Your task to perform on an android device: set an alarm Image 0: 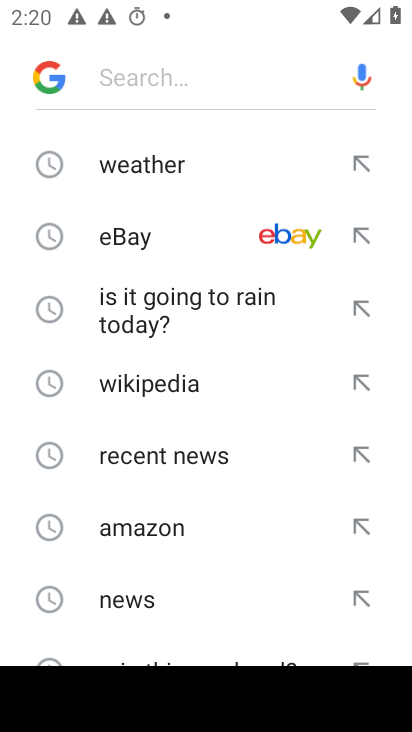
Step 0: press home button
Your task to perform on an android device: set an alarm Image 1: 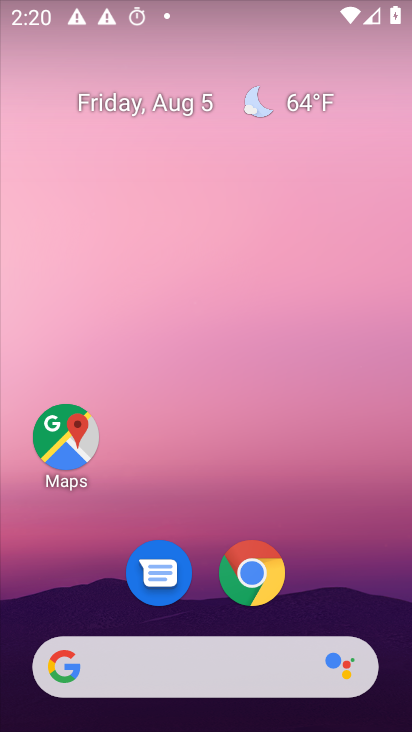
Step 1: drag from (349, 596) to (395, 315)
Your task to perform on an android device: set an alarm Image 2: 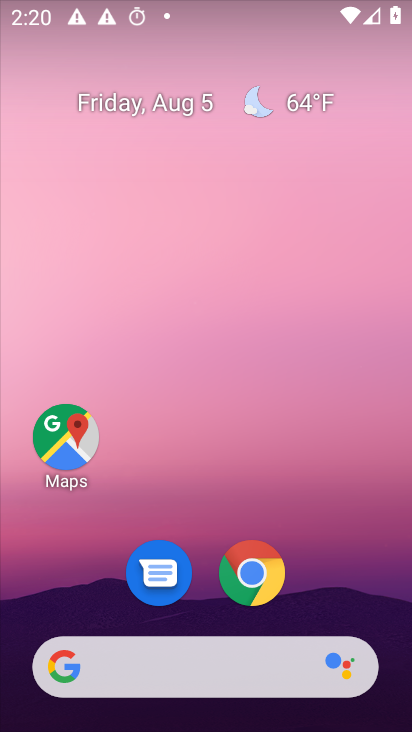
Step 2: drag from (372, 590) to (375, 310)
Your task to perform on an android device: set an alarm Image 3: 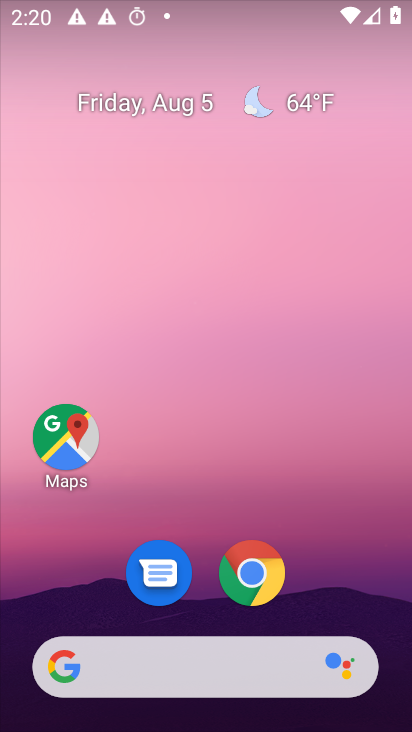
Step 3: drag from (331, 597) to (349, 181)
Your task to perform on an android device: set an alarm Image 4: 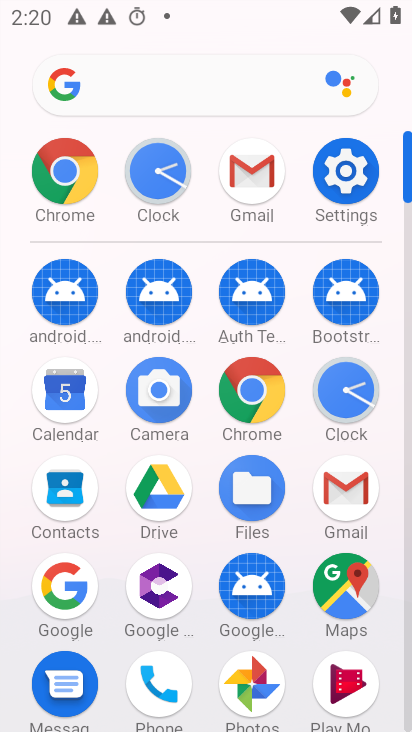
Step 4: click (348, 403)
Your task to perform on an android device: set an alarm Image 5: 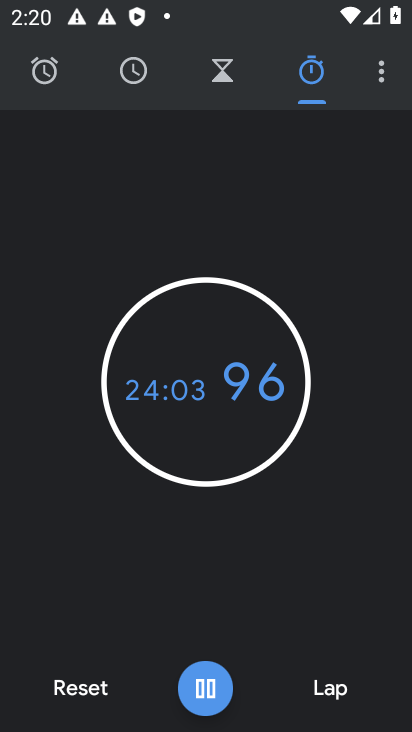
Step 5: click (51, 75)
Your task to perform on an android device: set an alarm Image 6: 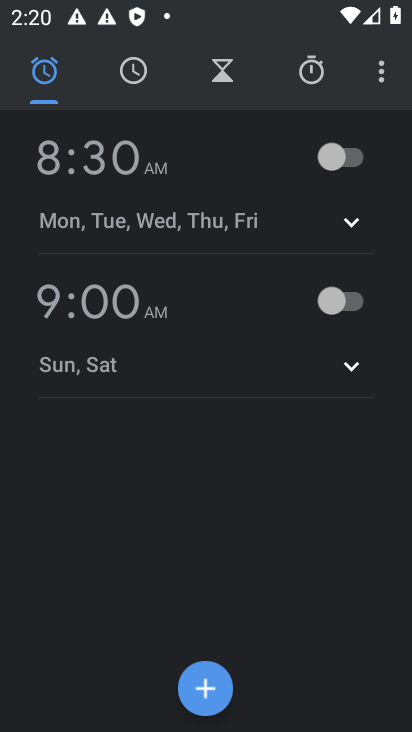
Step 6: click (209, 675)
Your task to perform on an android device: set an alarm Image 7: 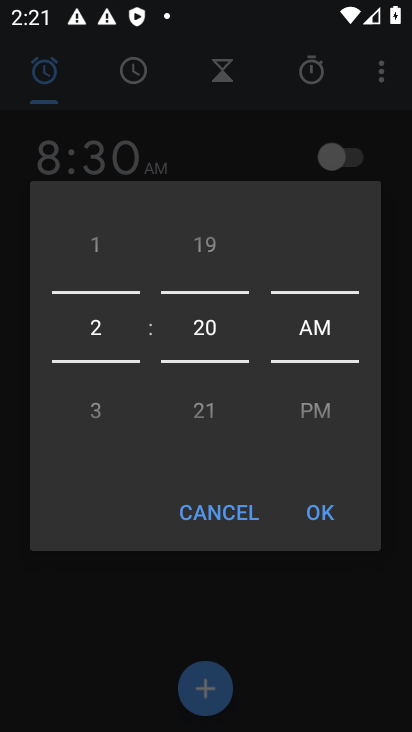
Step 7: click (321, 516)
Your task to perform on an android device: set an alarm Image 8: 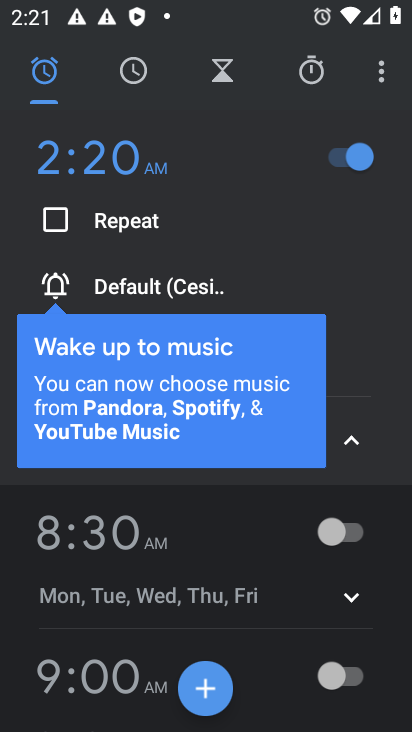
Step 8: task complete